Your task to perform on an android device: Open calendar and show me the fourth week of next month Image 0: 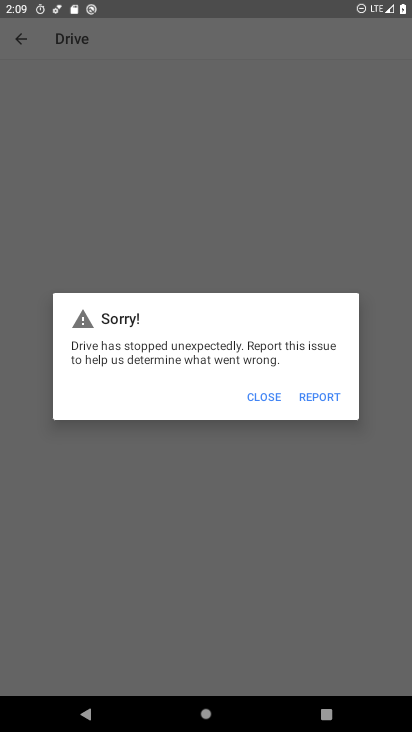
Step 0: press home button
Your task to perform on an android device: Open calendar and show me the fourth week of next month Image 1: 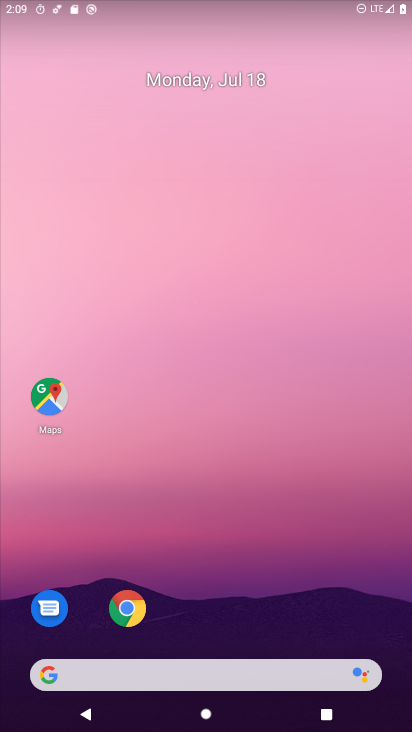
Step 1: drag from (248, 681) to (234, 115)
Your task to perform on an android device: Open calendar and show me the fourth week of next month Image 2: 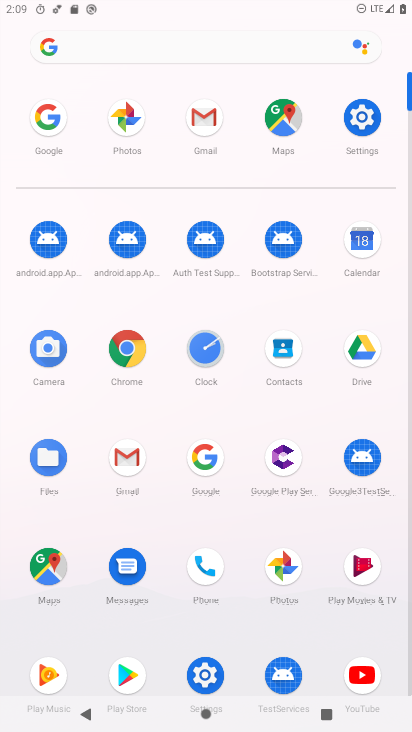
Step 2: click (359, 249)
Your task to perform on an android device: Open calendar and show me the fourth week of next month Image 3: 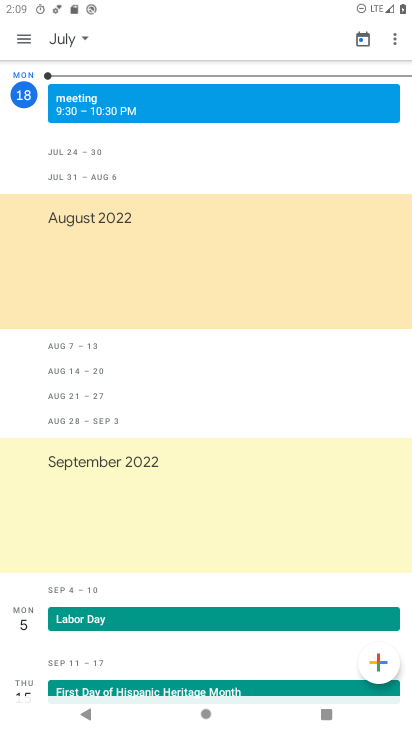
Step 3: click (83, 49)
Your task to perform on an android device: Open calendar and show me the fourth week of next month Image 4: 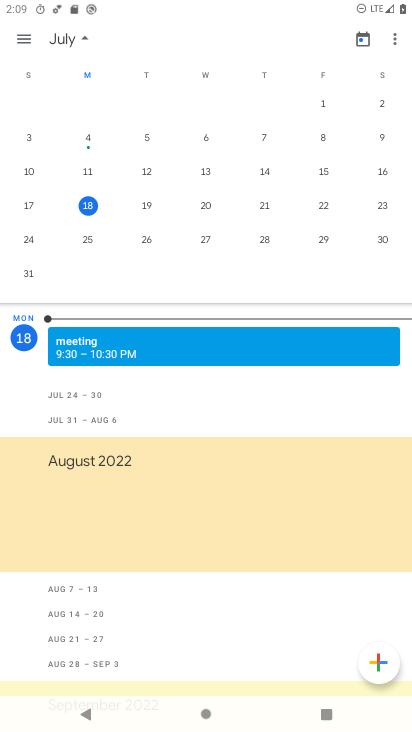
Step 4: drag from (367, 230) to (73, 219)
Your task to perform on an android device: Open calendar and show me the fourth week of next month Image 5: 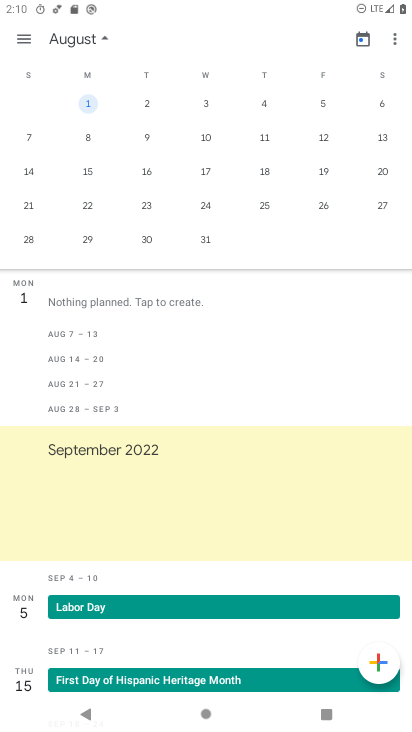
Step 5: click (87, 202)
Your task to perform on an android device: Open calendar and show me the fourth week of next month Image 6: 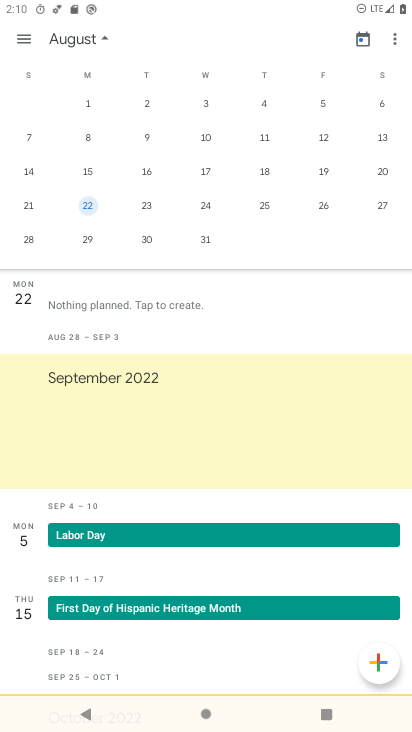
Step 6: click (24, 40)
Your task to perform on an android device: Open calendar and show me the fourth week of next month Image 7: 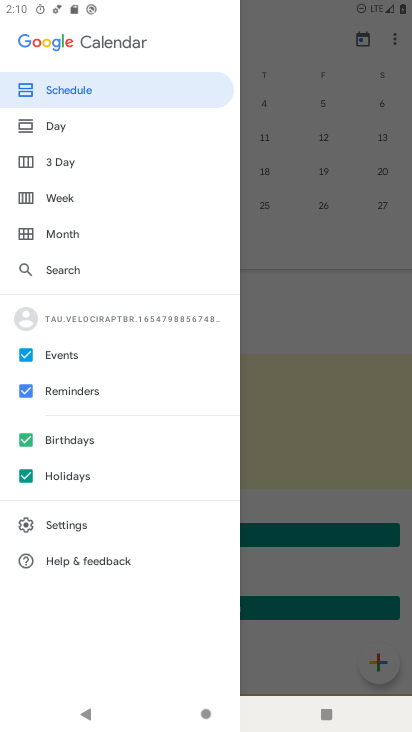
Step 7: click (60, 198)
Your task to perform on an android device: Open calendar and show me the fourth week of next month Image 8: 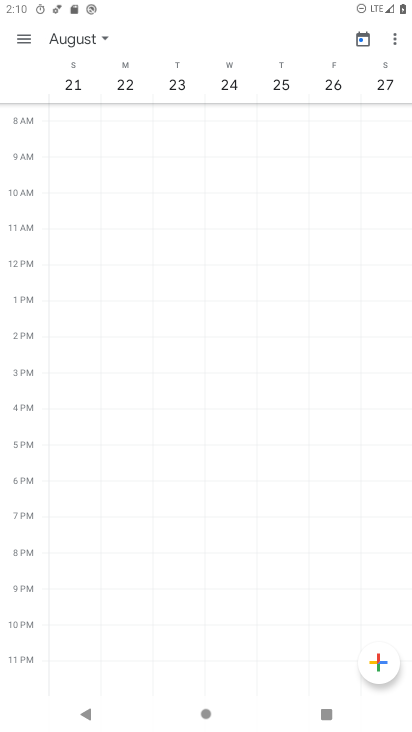
Step 8: task complete